Your task to perform on an android device: Open Android settings Image 0: 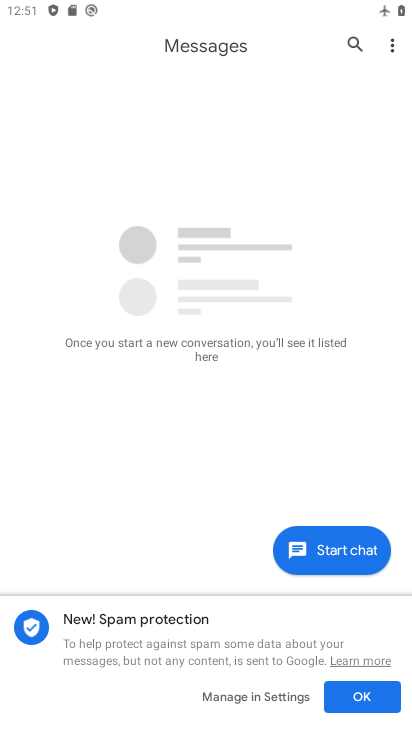
Step 0: press home button
Your task to perform on an android device: Open Android settings Image 1: 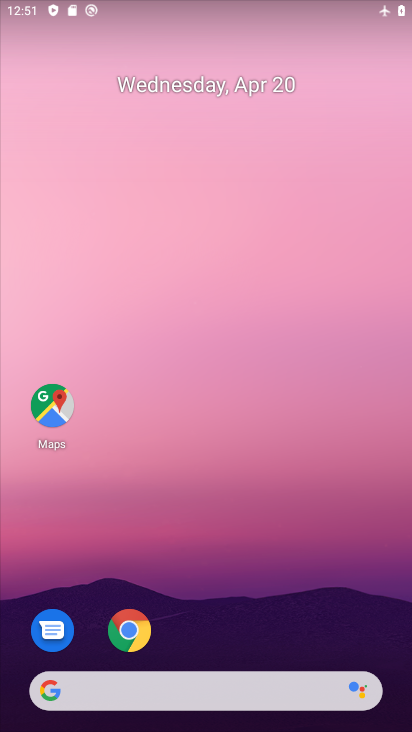
Step 1: drag from (207, 630) to (188, 113)
Your task to perform on an android device: Open Android settings Image 2: 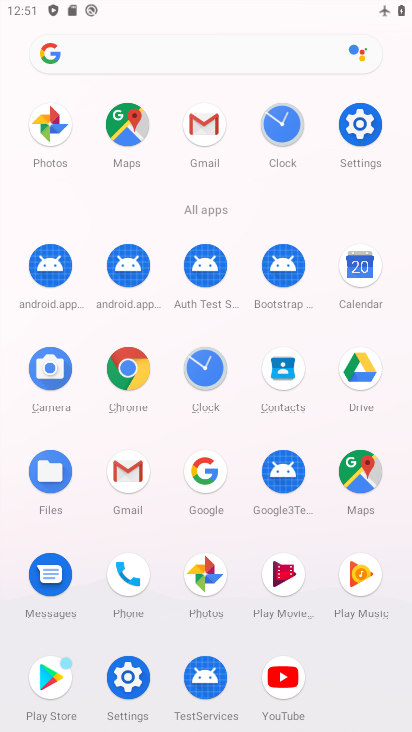
Step 2: click (356, 125)
Your task to perform on an android device: Open Android settings Image 3: 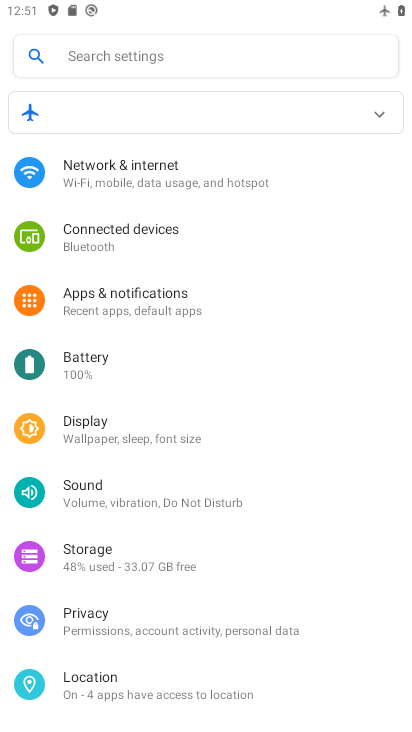
Step 3: drag from (146, 659) to (140, 202)
Your task to perform on an android device: Open Android settings Image 4: 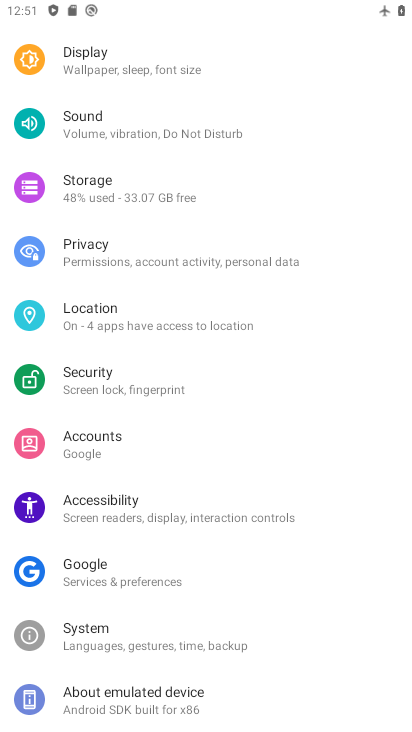
Step 4: click (116, 705)
Your task to perform on an android device: Open Android settings Image 5: 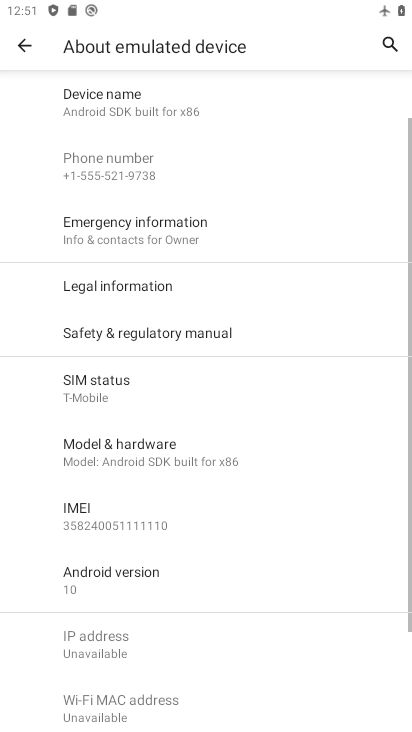
Step 5: click (104, 581)
Your task to perform on an android device: Open Android settings Image 6: 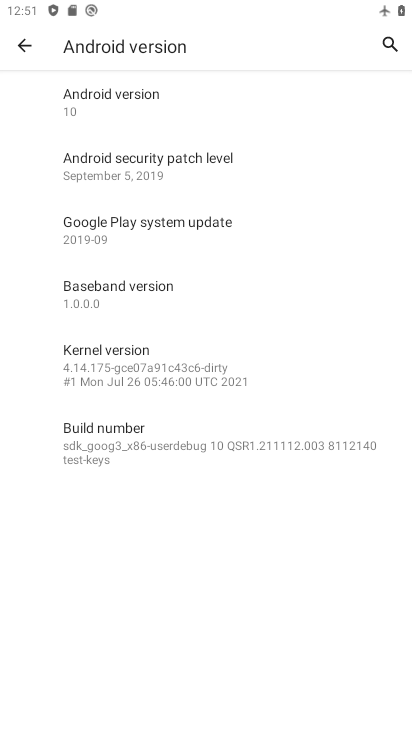
Step 6: task complete